Your task to perform on an android device: Search for Mexican restaurants on Maps Image 0: 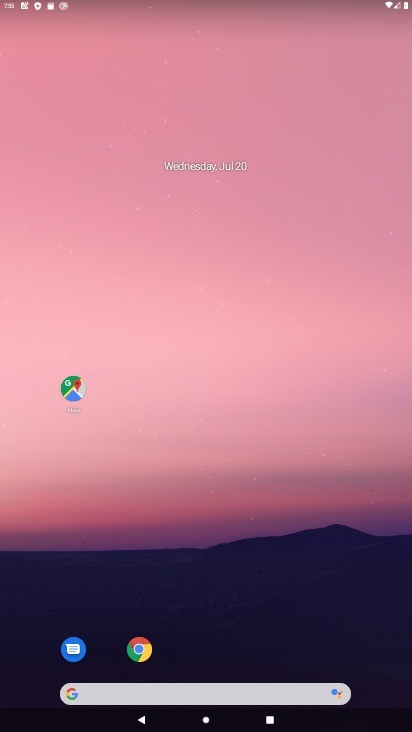
Step 0: click (155, 655)
Your task to perform on an android device: Search for Mexican restaurants on Maps Image 1: 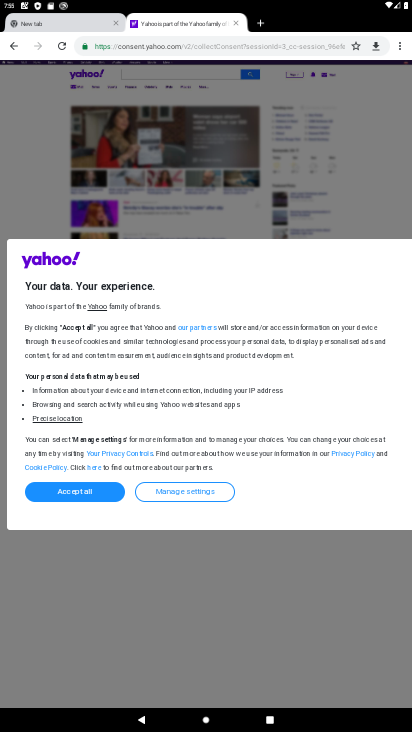
Step 1: press home button
Your task to perform on an android device: Search for Mexican restaurants on Maps Image 2: 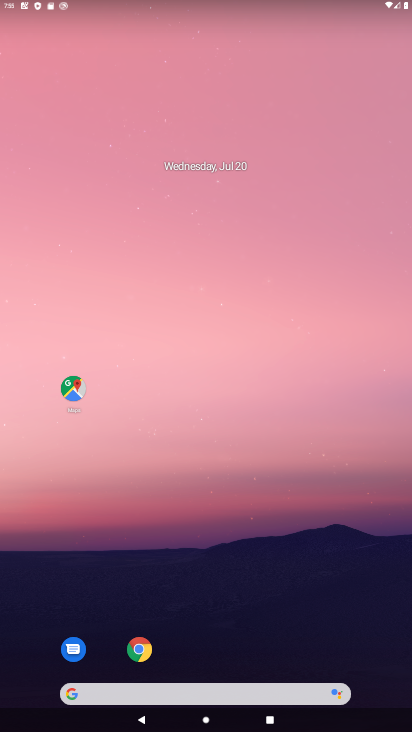
Step 2: click (69, 390)
Your task to perform on an android device: Search for Mexican restaurants on Maps Image 3: 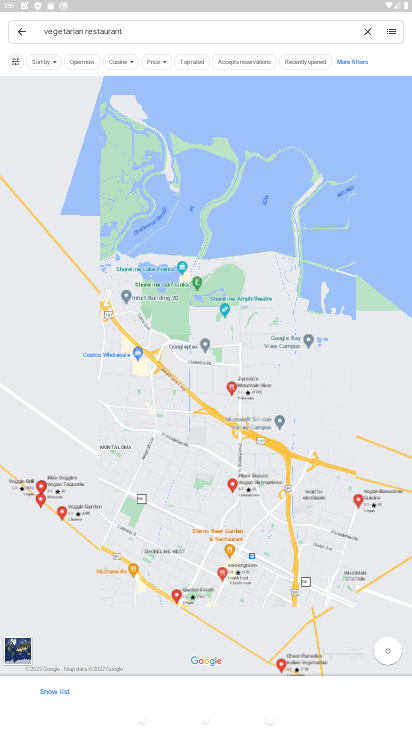
Step 3: click (214, 32)
Your task to perform on an android device: Search for Mexican restaurants on Maps Image 4: 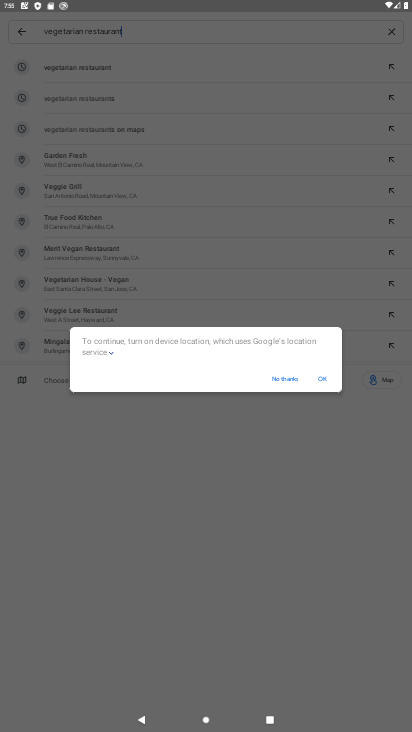
Step 4: click (325, 373)
Your task to perform on an android device: Search for Mexican restaurants on Maps Image 5: 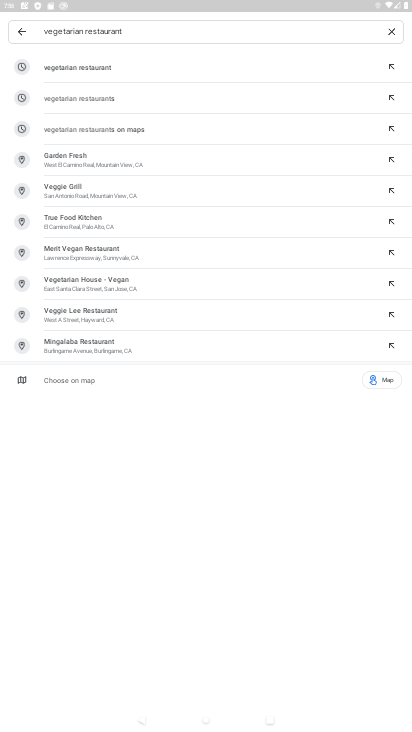
Step 5: click (103, 97)
Your task to perform on an android device: Search for Mexican restaurants on Maps Image 6: 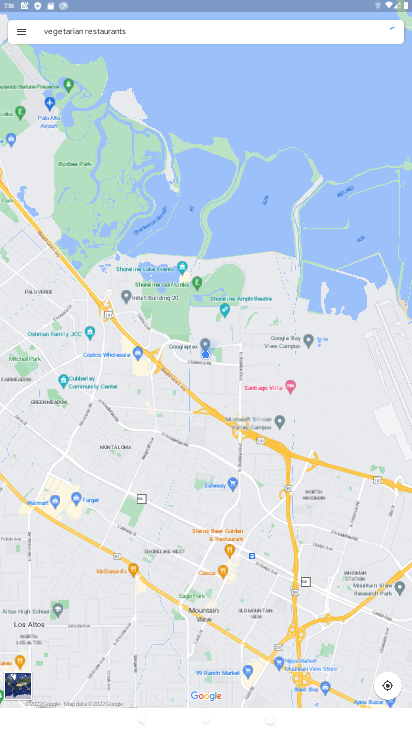
Step 6: task complete